Your task to perform on an android device: Search for seafood restaurants on Google Maps Image 0: 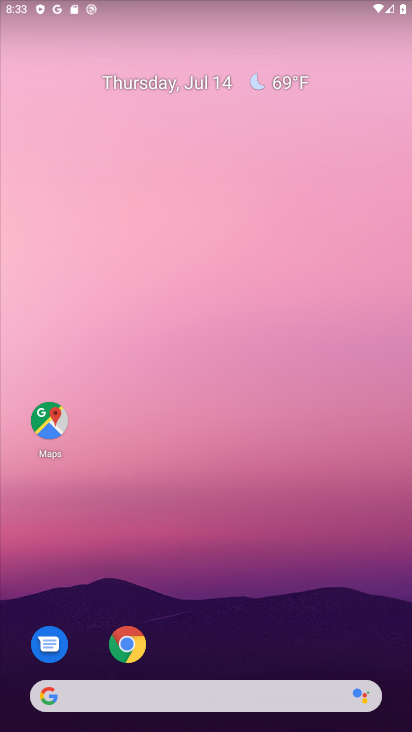
Step 0: click (47, 427)
Your task to perform on an android device: Search for seafood restaurants on Google Maps Image 1: 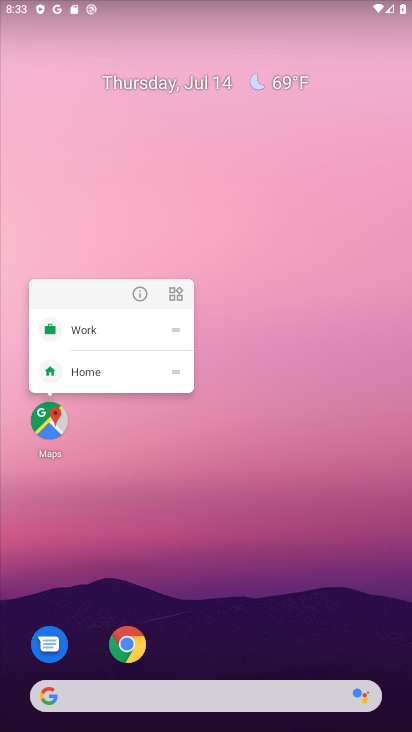
Step 1: click (95, 381)
Your task to perform on an android device: Search for seafood restaurants on Google Maps Image 2: 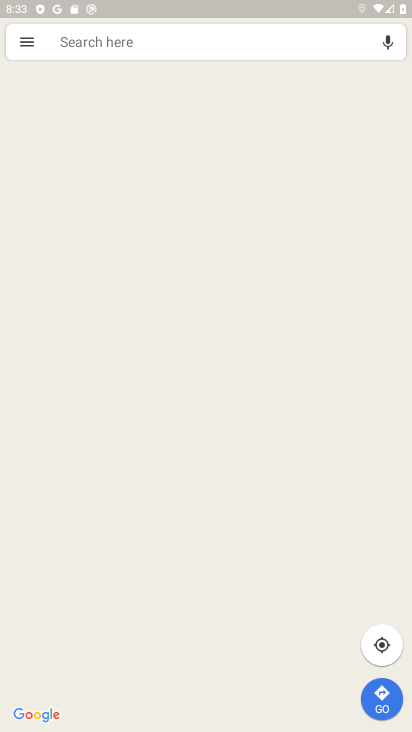
Step 2: click (228, 39)
Your task to perform on an android device: Search for seafood restaurants on Google Maps Image 3: 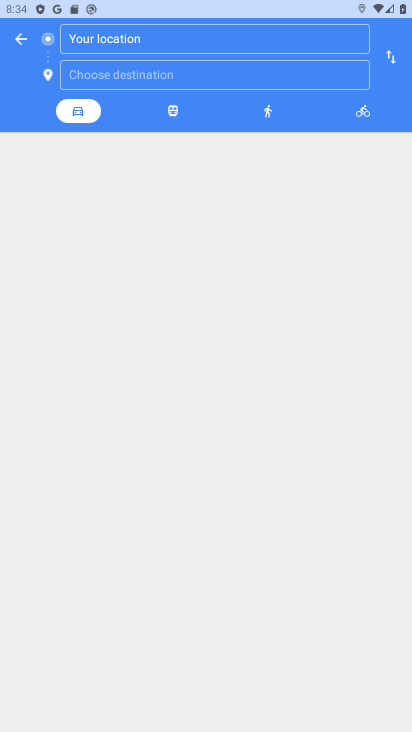
Step 3: click (18, 44)
Your task to perform on an android device: Search for seafood restaurants on Google Maps Image 4: 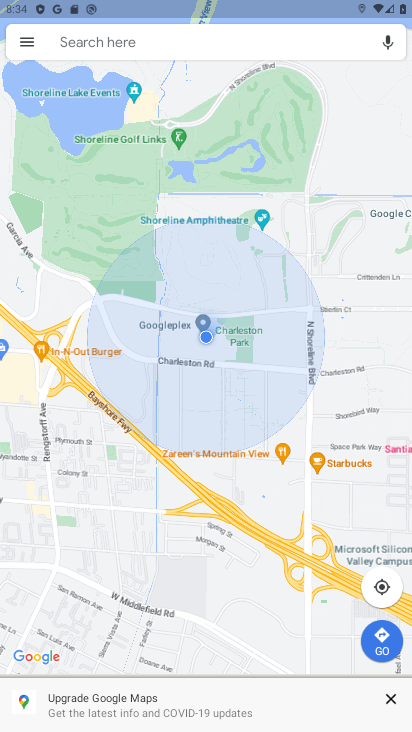
Step 4: click (121, 42)
Your task to perform on an android device: Search for seafood restaurants on Google Maps Image 5: 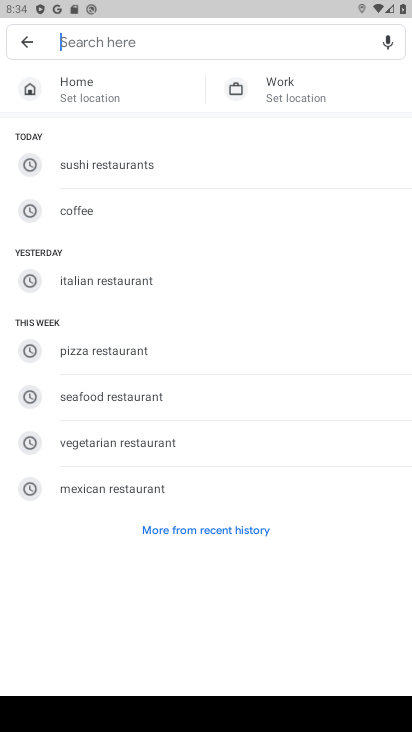
Step 5: click (242, 396)
Your task to perform on an android device: Search for seafood restaurants on Google Maps Image 6: 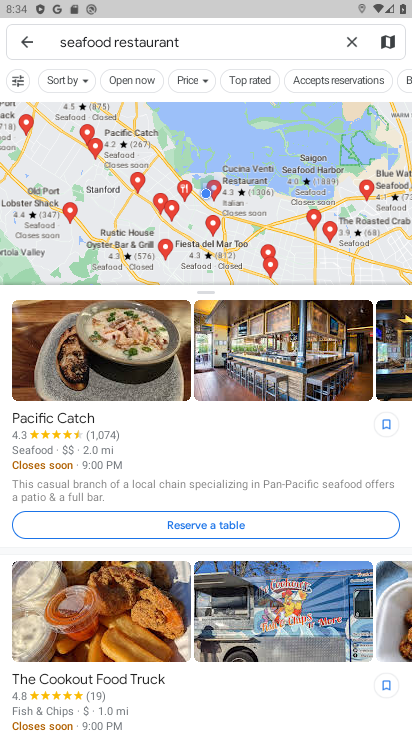
Step 6: task complete